Your task to perform on an android device: Clear all items from cart on newegg. Image 0: 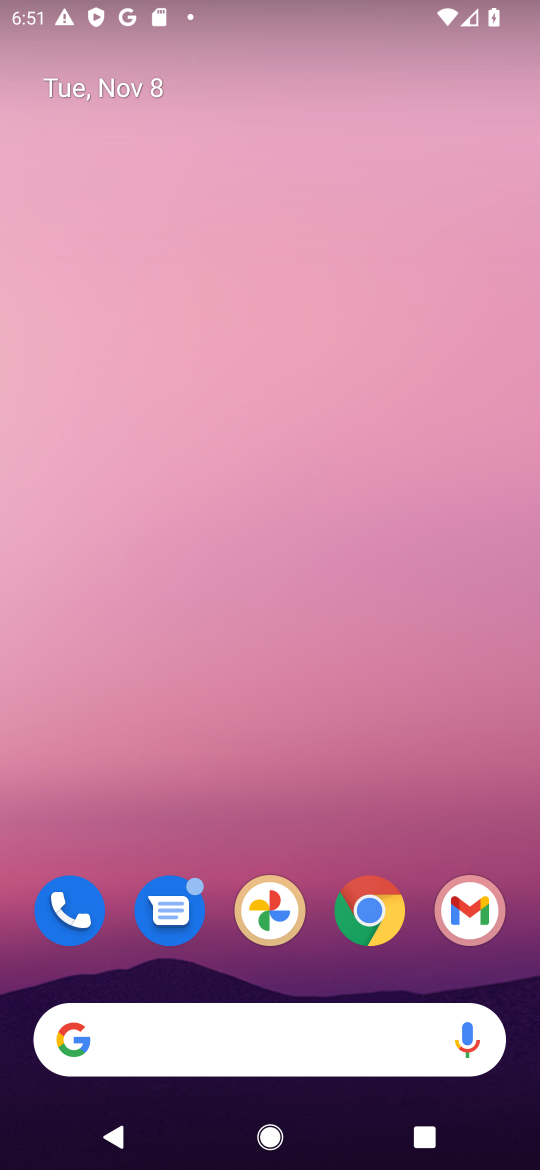
Step 0: click (359, 909)
Your task to perform on an android device: Clear all items from cart on newegg. Image 1: 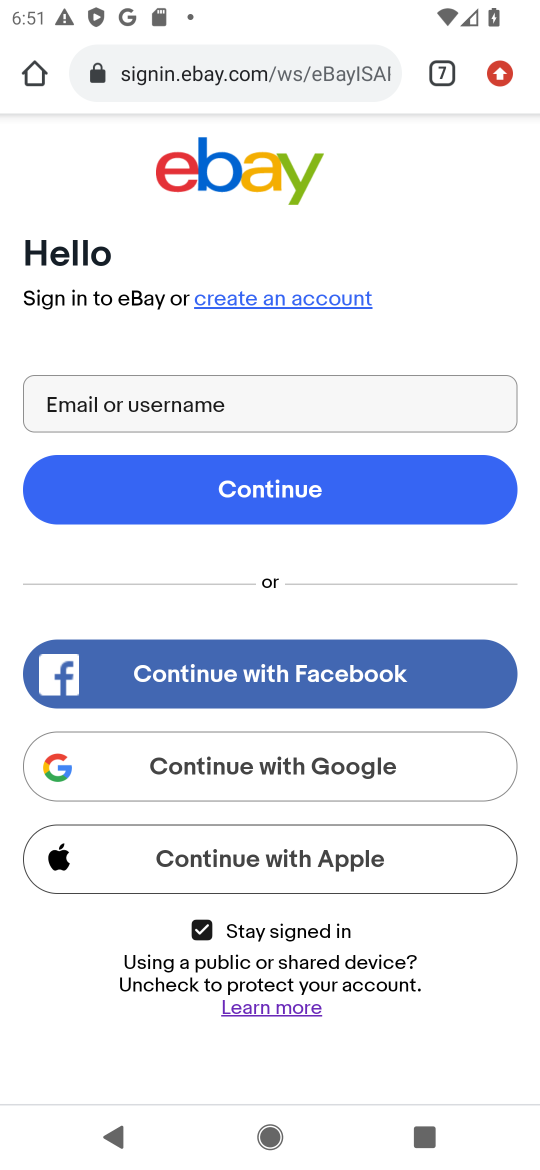
Step 1: click (442, 66)
Your task to perform on an android device: Clear all items from cart on newegg. Image 2: 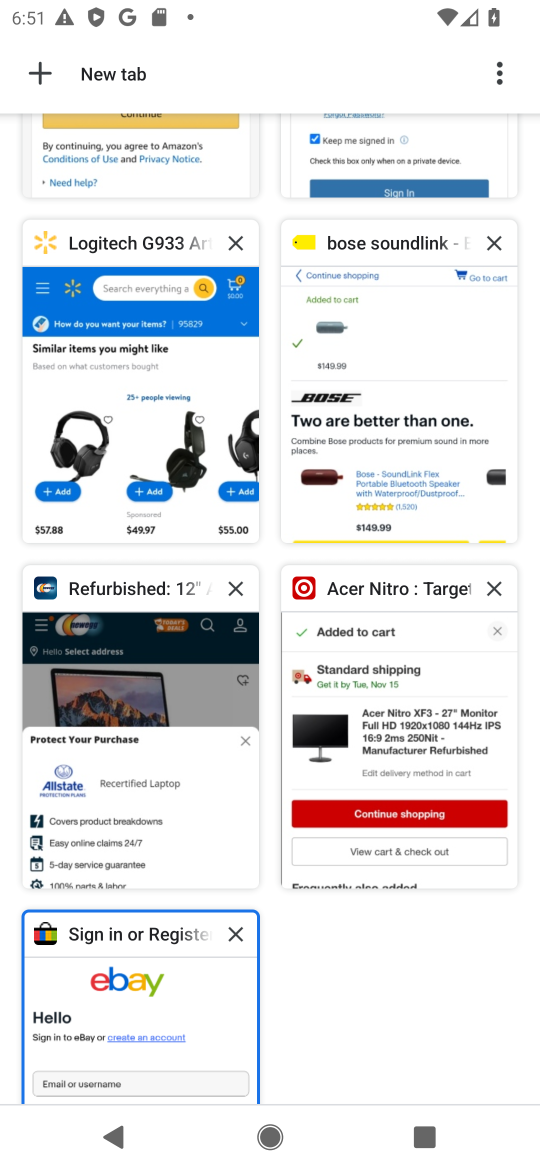
Step 2: click (110, 704)
Your task to perform on an android device: Clear all items from cart on newegg. Image 3: 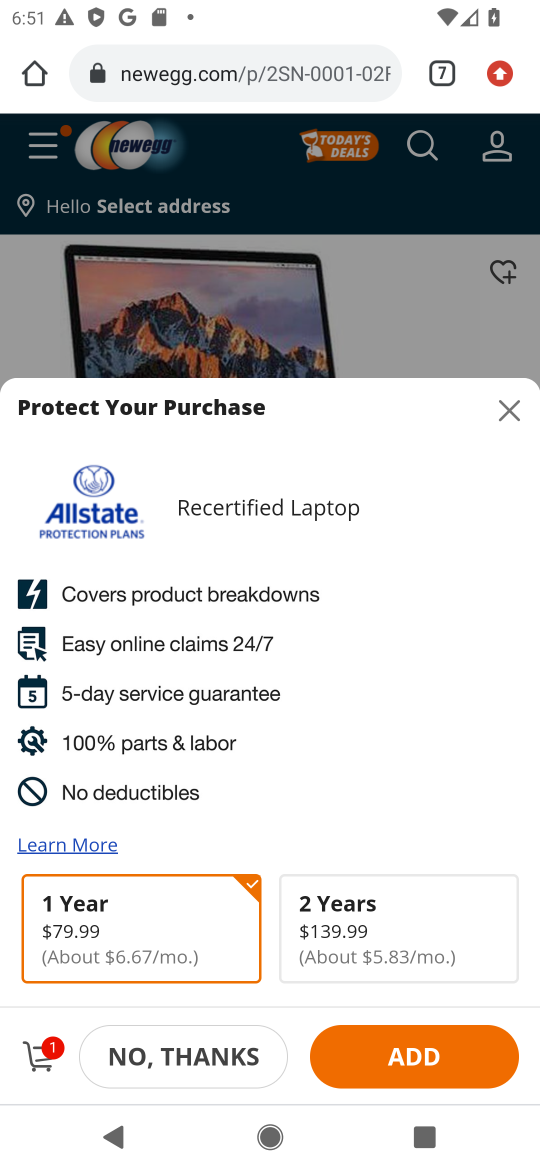
Step 3: click (53, 1051)
Your task to perform on an android device: Clear all items from cart on newegg. Image 4: 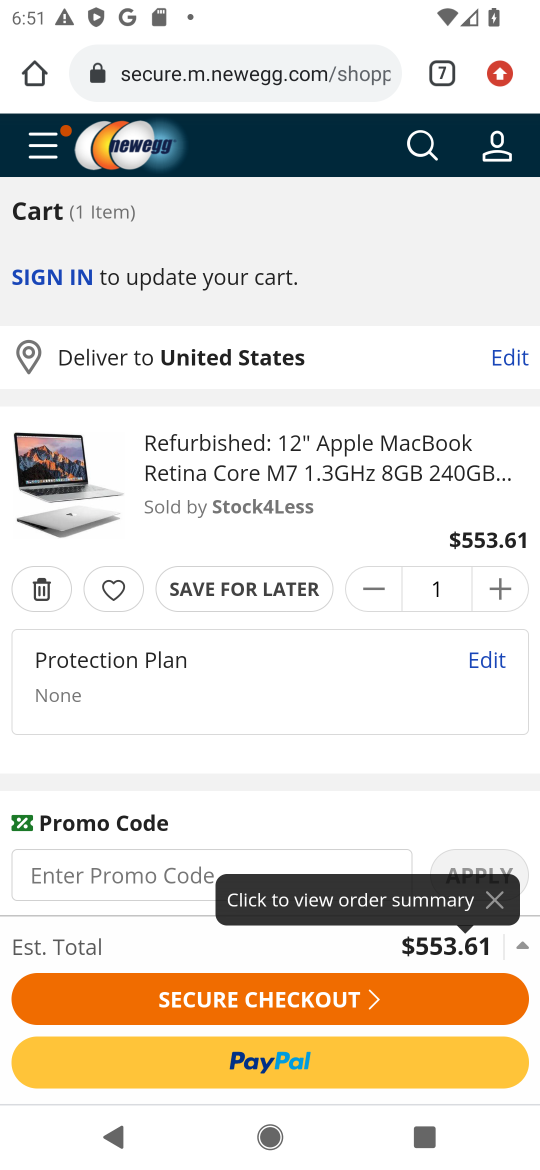
Step 4: click (39, 590)
Your task to perform on an android device: Clear all items from cart on newegg. Image 5: 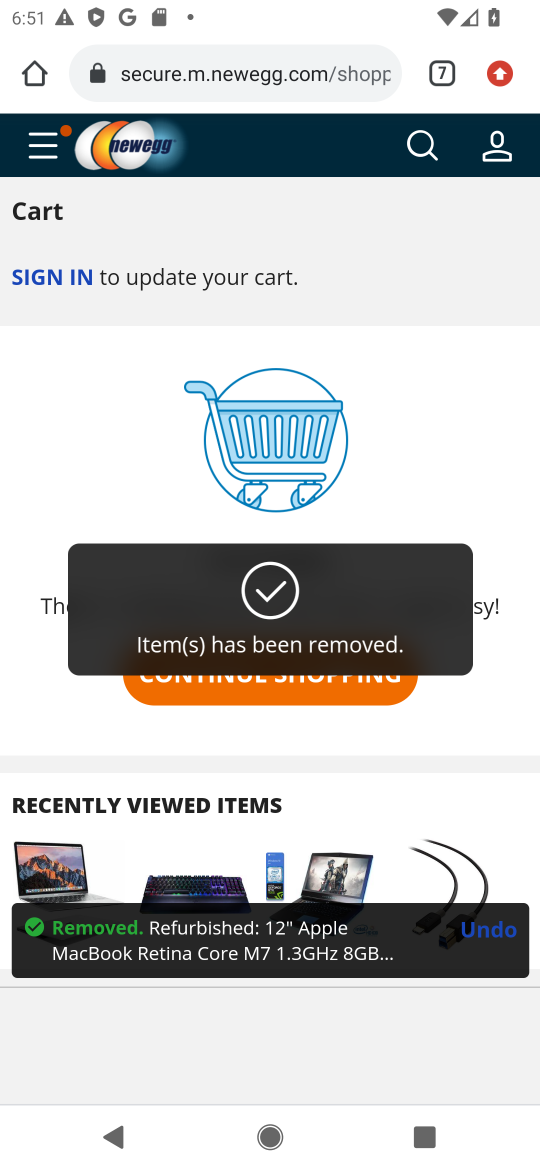
Step 5: task complete